Your task to perform on an android device: empty trash in google photos Image 0: 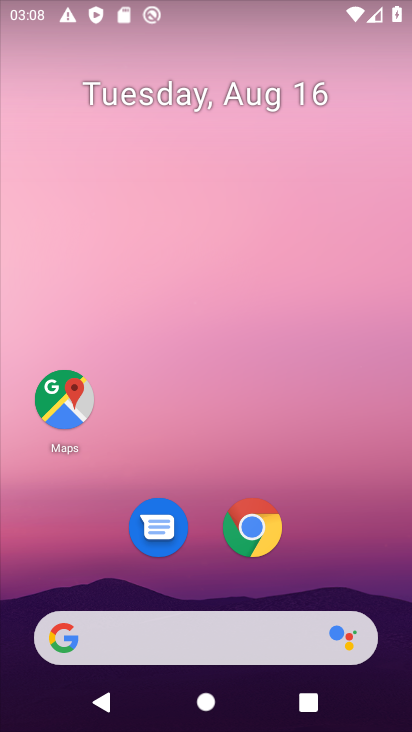
Step 0: drag from (219, 594) to (288, 17)
Your task to perform on an android device: empty trash in google photos Image 1: 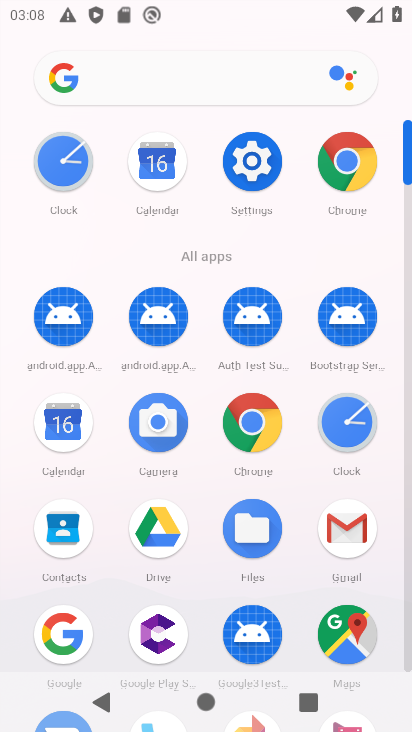
Step 1: drag from (201, 611) to (232, 152)
Your task to perform on an android device: empty trash in google photos Image 2: 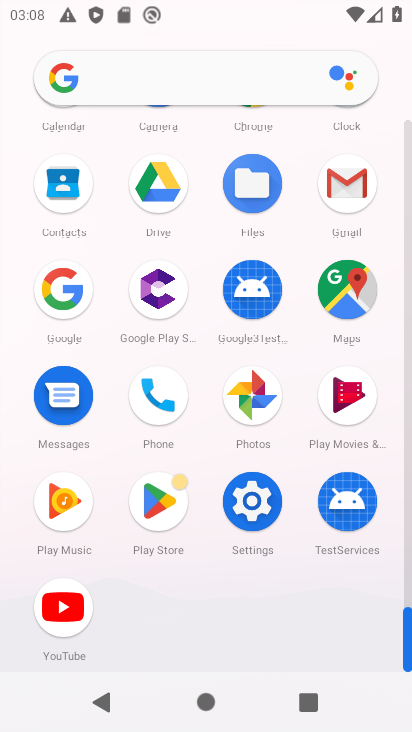
Step 2: click (253, 395)
Your task to perform on an android device: empty trash in google photos Image 3: 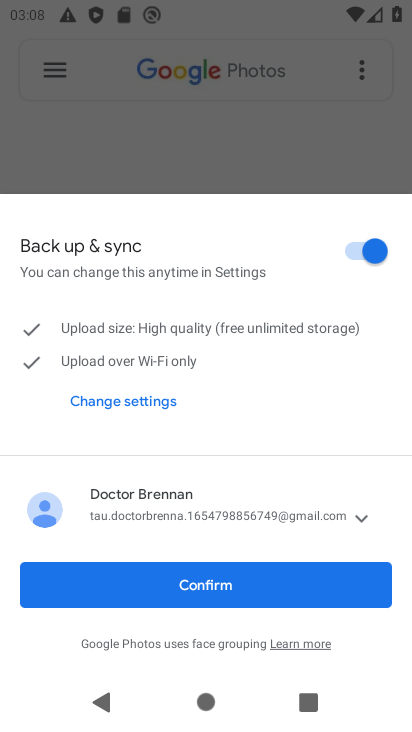
Step 3: click (205, 589)
Your task to perform on an android device: empty trash in google photos Image 4: 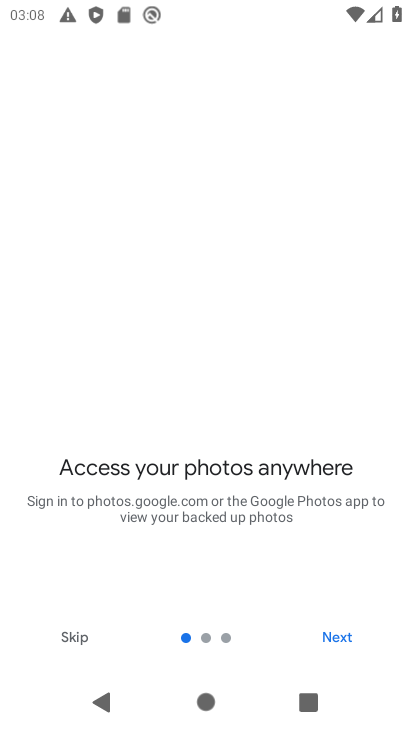
Step 4: click (336, 635)
Your task to perform on an android device: empty trash in google photos Image 5: 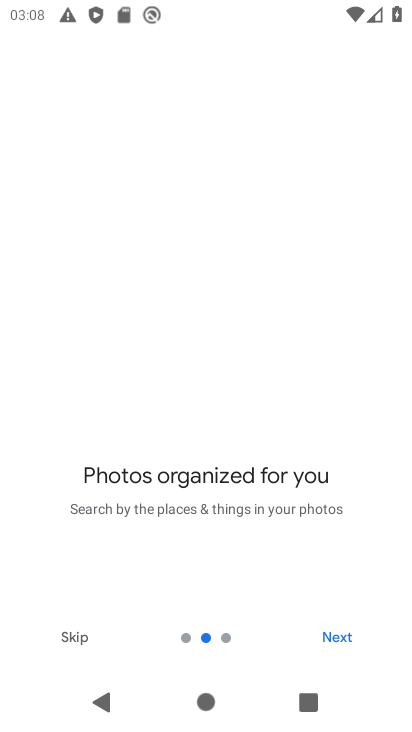
Step 5: click (336, 635)
Your task to perform on an android device: empty trash in google photos Image 6: 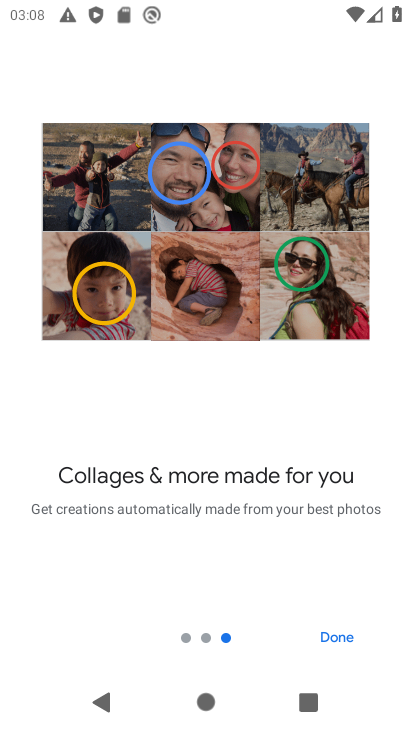
Step 6: click (336, 635)
Your task to perform on an android device: empty trash in google photos Image 7: 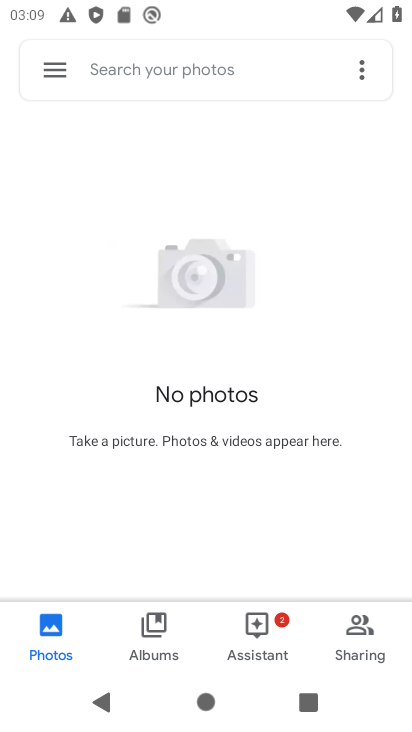
Step 7: click (55, 76)
Your task to perform on an android device: empty trash in google photos Image 8: 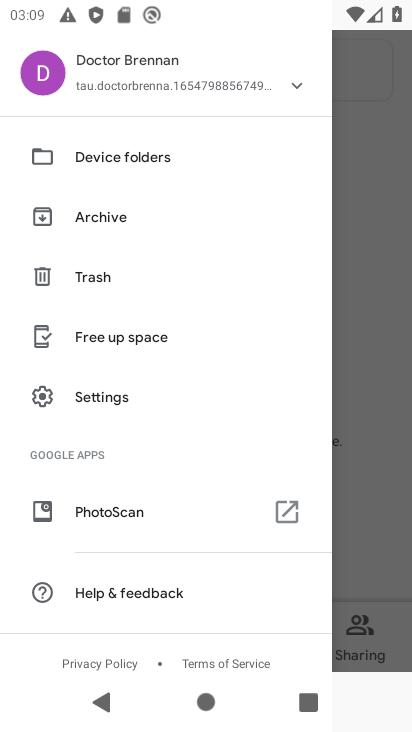
Step 8: click (73, 271)
Your task to perform on an android device: empty trash in google photos Image 9: 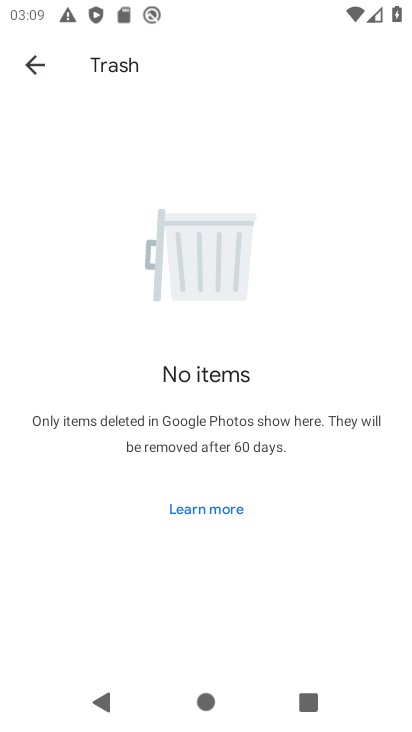
Step 9: task complete